Your task to perform on an android device: Search for Mexican restaurants on Maps Image 0: 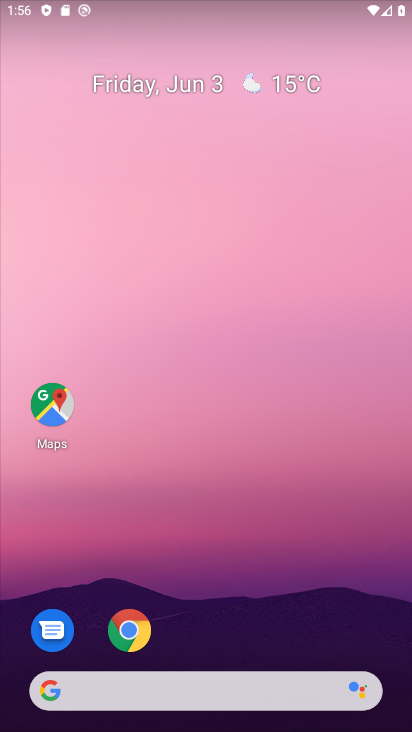
Step 0: drag from (311, 609) to (248, 0)
Your task to perform on an android device: Search for Mexican restaurants on Maps Image 1: 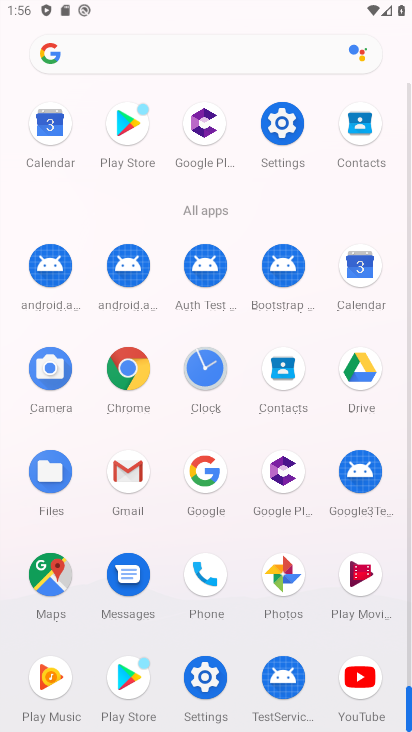
Step 1: drag from (9, 565) to (18, 190)
Your task to perform on an android device: Search for Mexican restaurants on Maps Image 2: 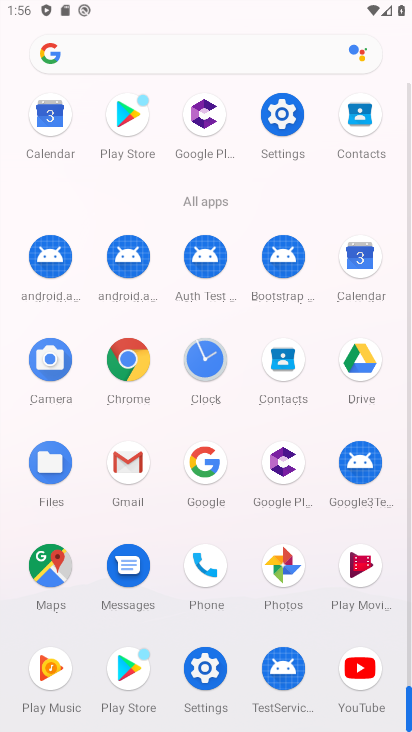
Step 2: click (126, 361)
Your task to perform on an android device: Search for Mexican restaurants on Maps Image 3: 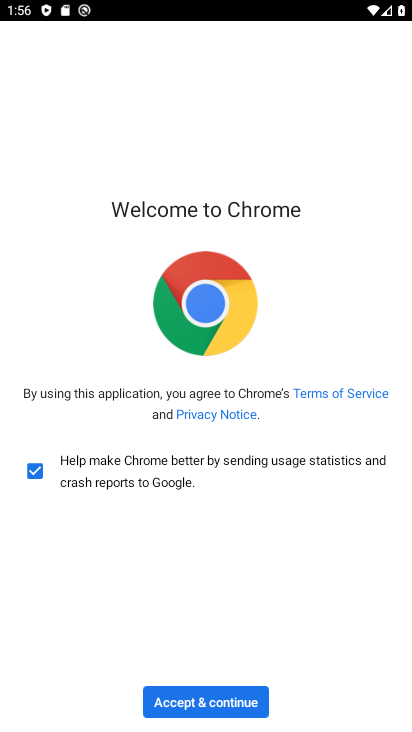
Step 3: click (216, 693)
Your task to perform on an android device: Search for Mexican restaurants on Maps Image 4: 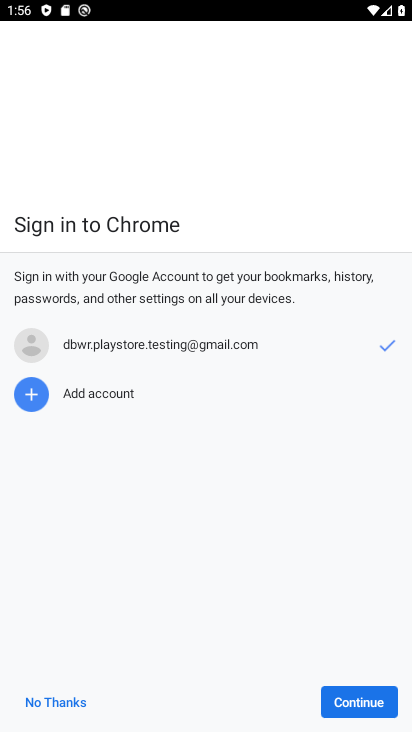
Step 4: click (375, 695)
Your task to perform on an android device: Search for Mexican restaurants on Maps Image 5: 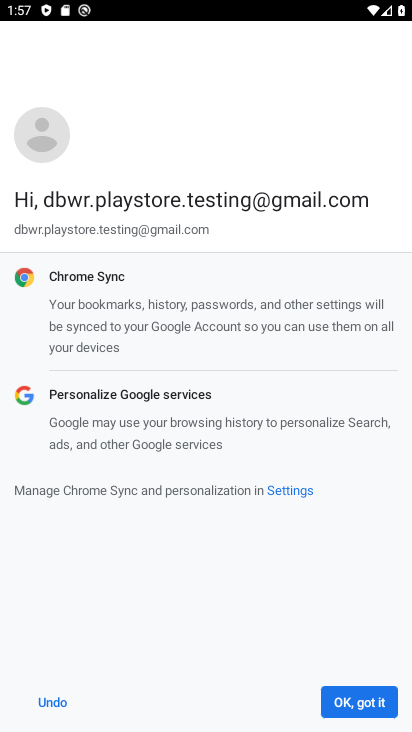
Step 5: click (342, 692)
Your task to perform on an android device: Search for Mexican restaurants on Maps Image 6: 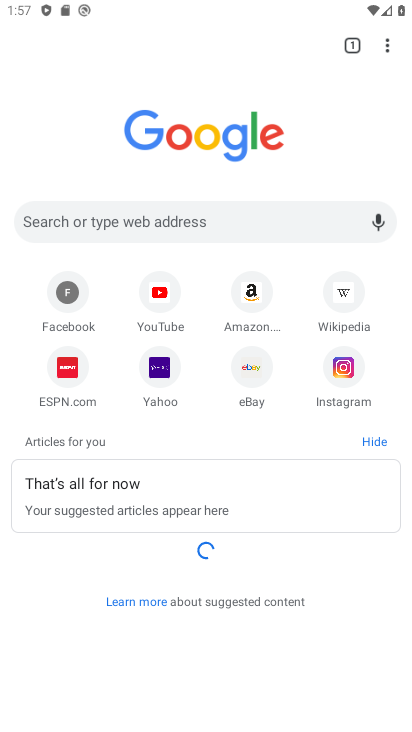
Step 6: press home button
Your task to perform on an android device: Search for Mexican restaurants on Maps Image 7: 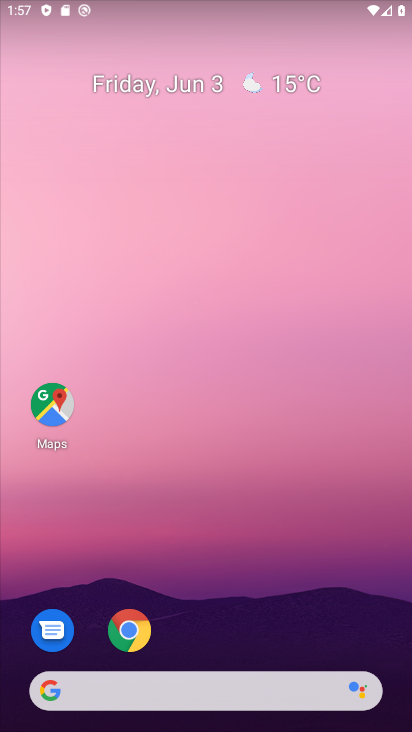
Step 7: drag from (265, 606) to (280, 2)
Your task to perform on an android device: Search for Mexican restaurants on Maps Image 8: 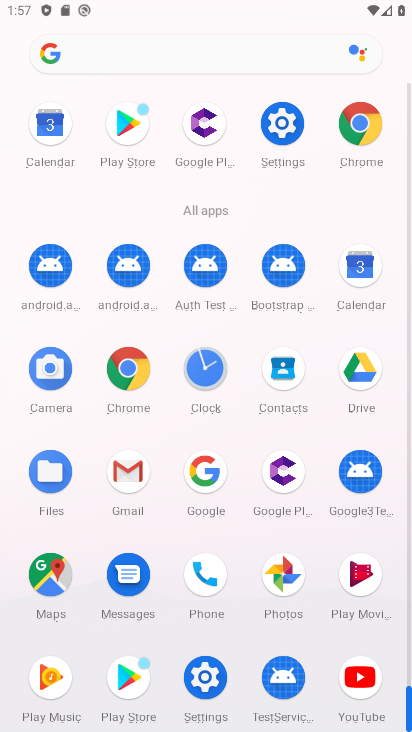
Step 8: click (47, 578)
Your task to perform on an android device: Search for Mexican restaurants on Maps Image 9: 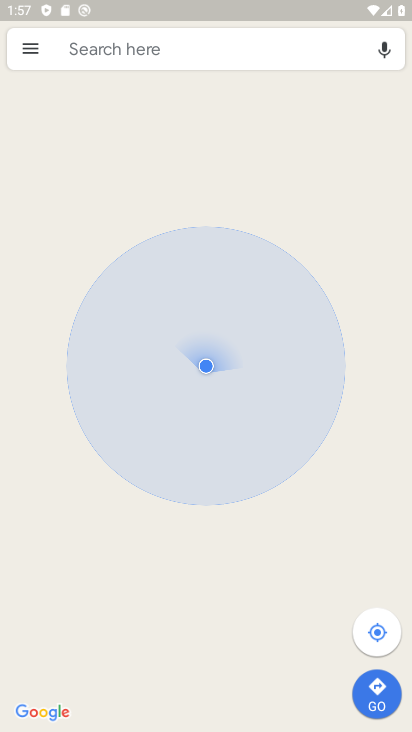
Step 9: click (167, 47)
Your task to perform on an android device: Search for Mexican restaurants on Maps Image 10: 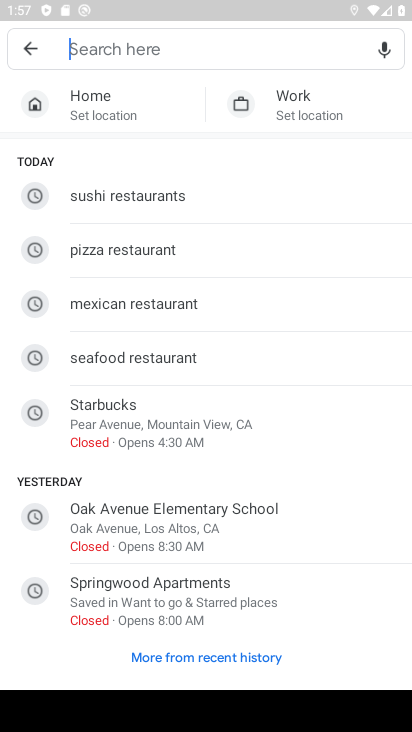
Step 10: type "Mexican restaurants"
Your task to perform on an android device: Search for Mexican restaurants on Maps Image 11: 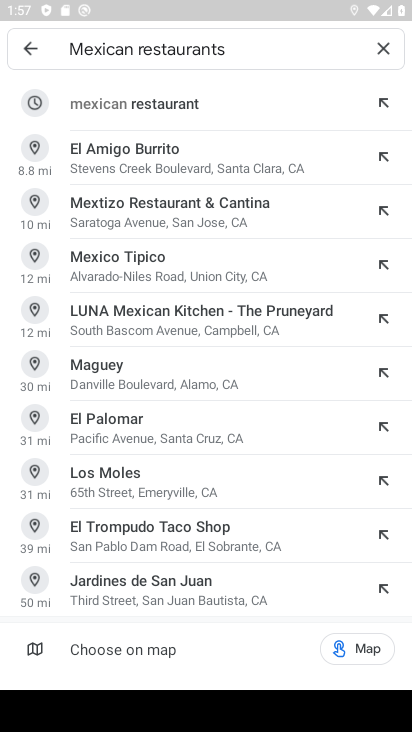
Step 11: click (150, 110)
Your task to perform on an android device: Search for Mexican restaurants on Maps Image 12: 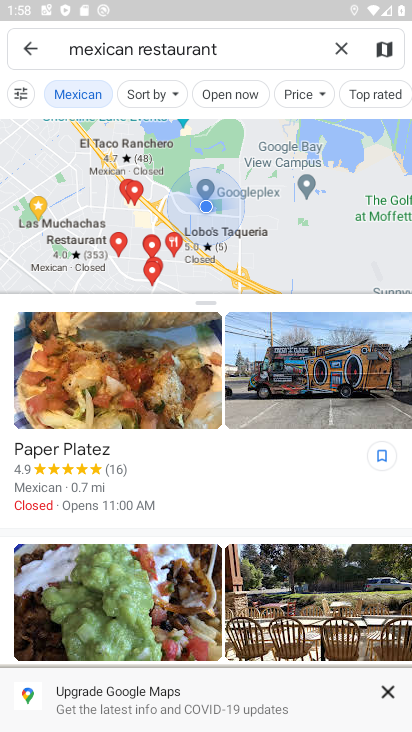
Step 12: task complete